Your task to perform on an android device: Open Amazon Image 0: 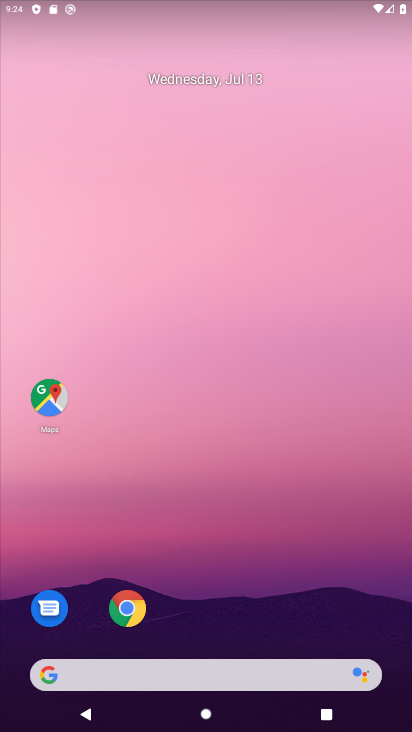
Step 0: click (130, 676)
Your task to perform on an android device: Open Amazon Image 1: 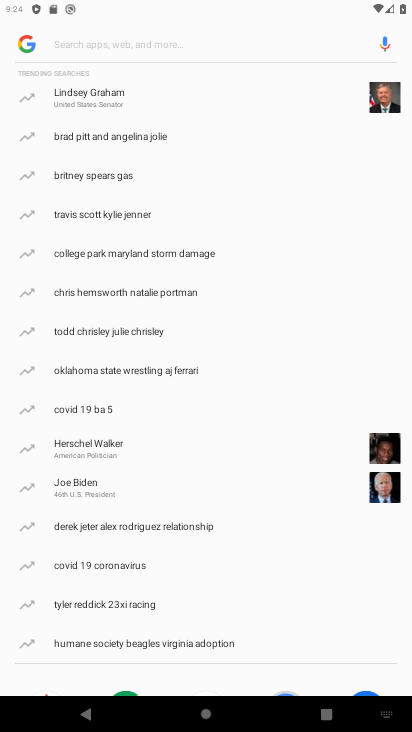
Step 1: type "Amazon"
Your task to perform on an android device: Open Amazon Image 2: 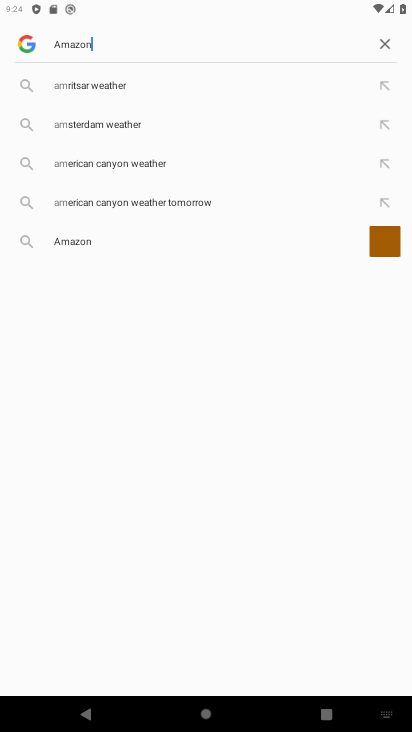
Step 2: type ""
Your task to perform on an android device: Open Amazon Image 3: 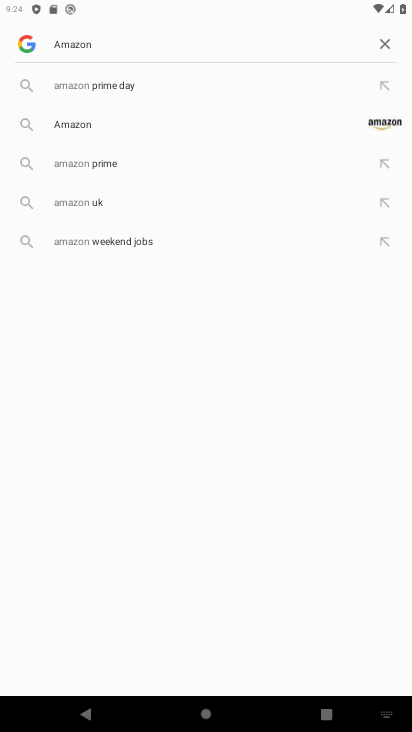
Step 3: click (81, 126)
Your task to perform on an android device: Open Amazon Image 4: 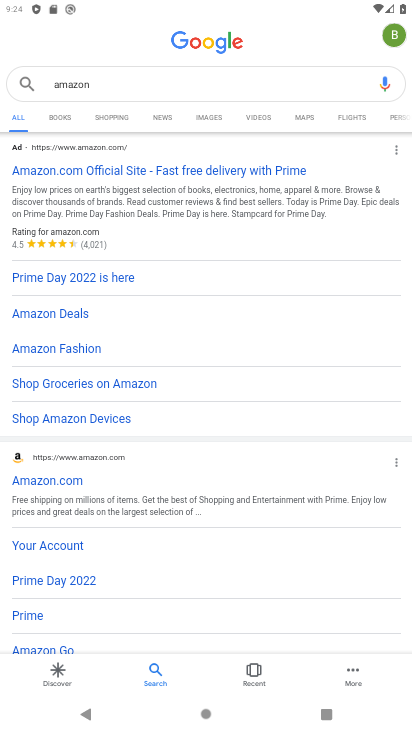
Step 4: task complete